Your task to perform on an android device: Search for logitech g903 on target, select the first entry, and add it to the cart. Image 0: 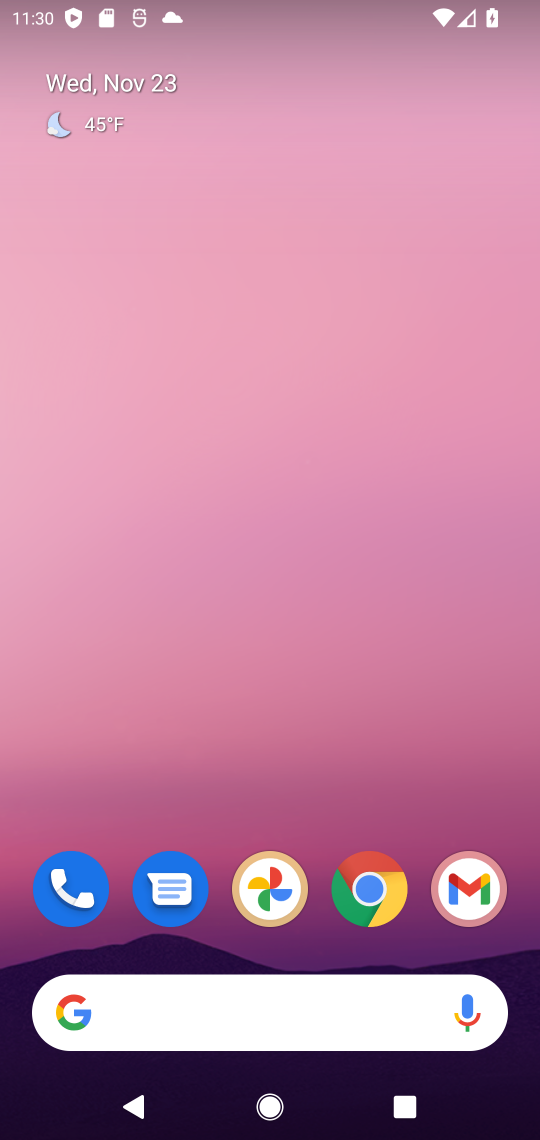
Step 0: click (380, 891)
Your task to perform on an android device: Search for logitech g903 on target, select the first entry, and add it to the cart. Image 1: 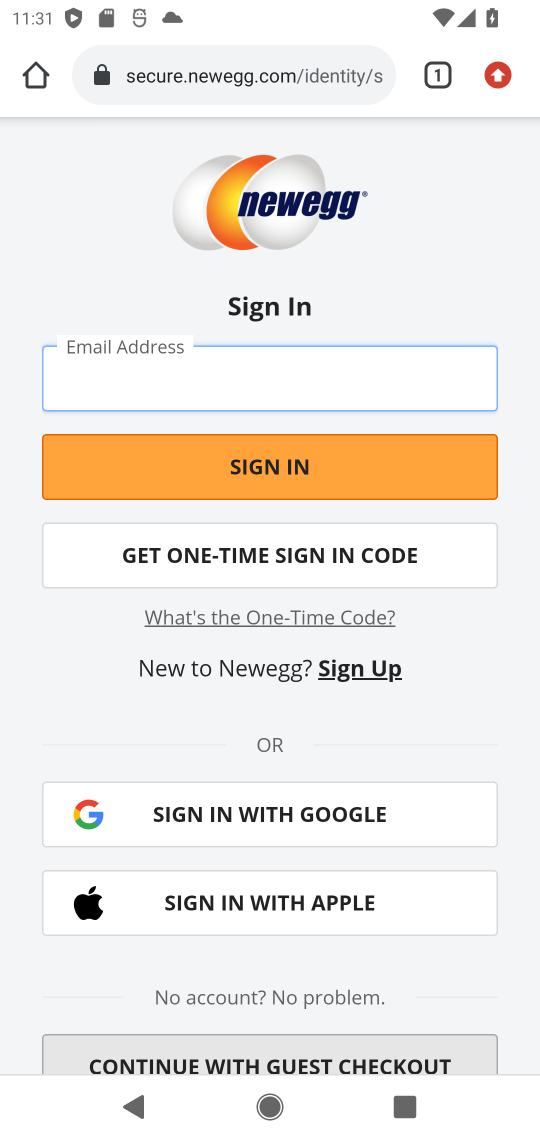
Step 1: click (185, 77)
Your task to perform on an android device: Search for logitech g903 on target, select the first entry, and add it to the cart. Image 2: 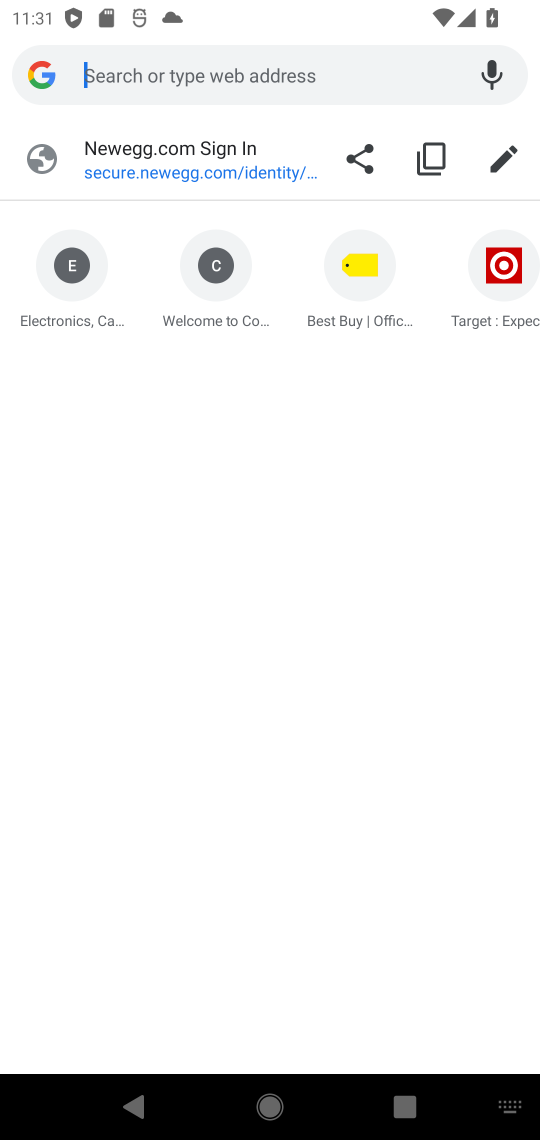
Step 2: click (497, 313)
Your task to perform on an android device: Search for logitech g903 on target, select the first entry, and add it to the cart. Image 3: 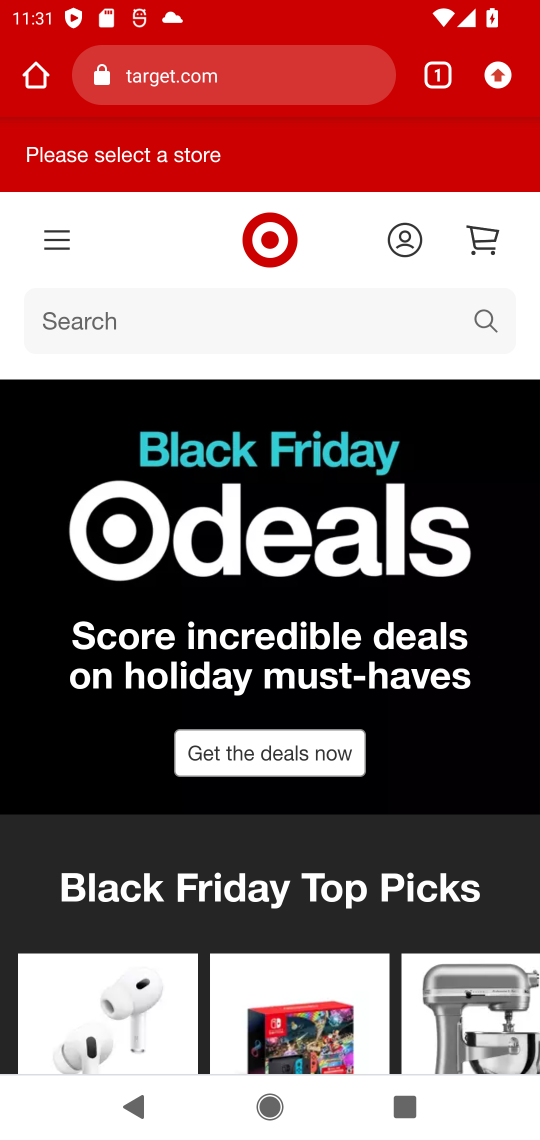
Step 3: click (477, 324)
Your task to perform on an android device: Search for logitech g903 on target, select the first entry, and add it to the cart. Image 4: 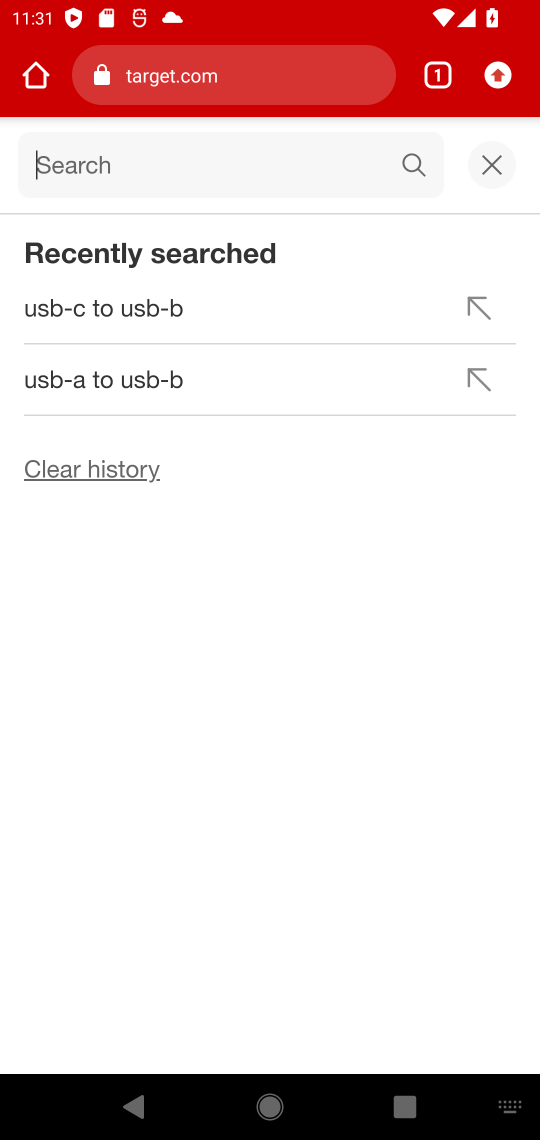
Step 4: type "logitech g903"
Your task to perform on an android device: Search for logitech g903 on target, select the first entry, and add it to the cart. Image 5: 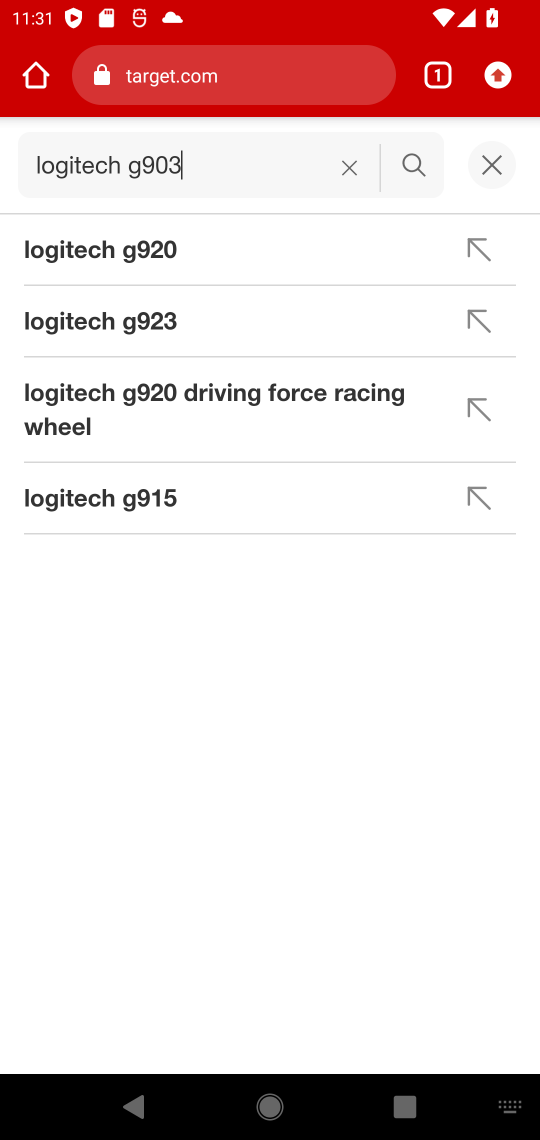
Step 5: click (88, 169)
Your task to perform on an android device: Search for logitech g903 on target, select the first entry, and add it to the cart. Image 6: 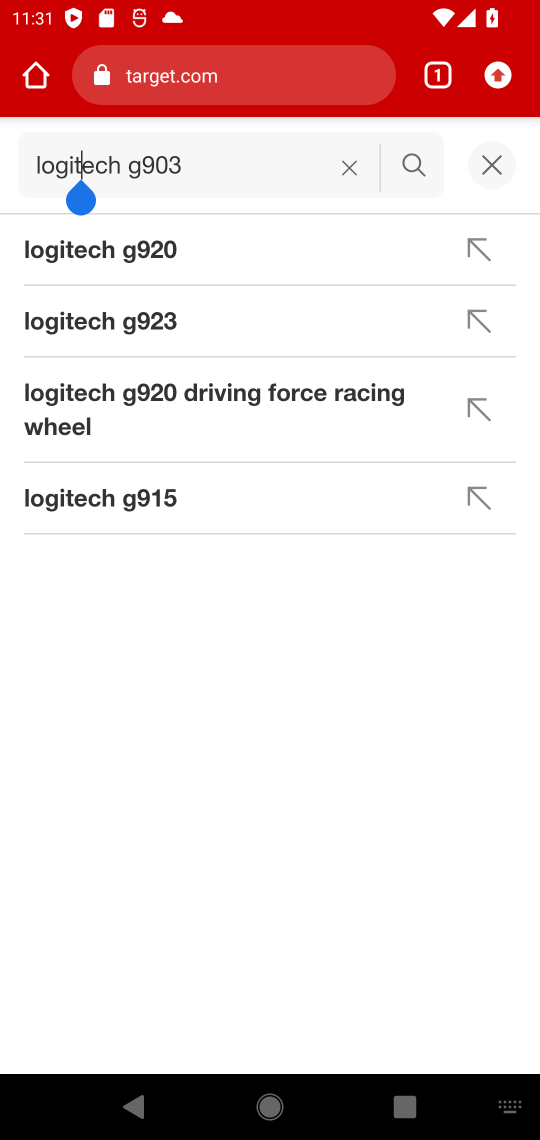
Step 6: click (417, 173)
Your task to perform on an android device: Search for logitech g903 on target, select the first entry, and add it to the cart. Image 7: 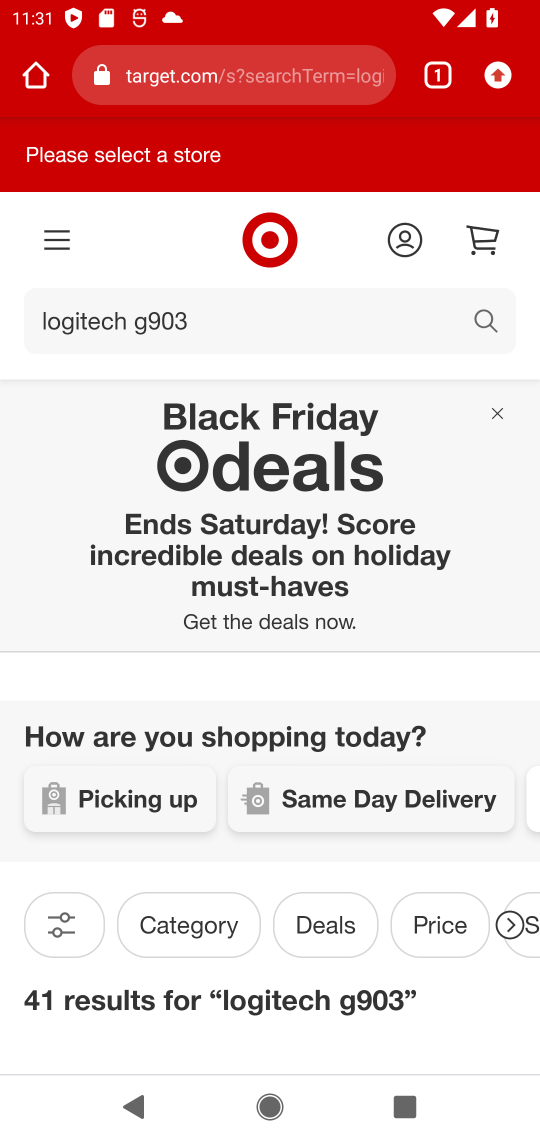
Step 7: task complete